Your task to perform on an android device: Open maps Image 0: 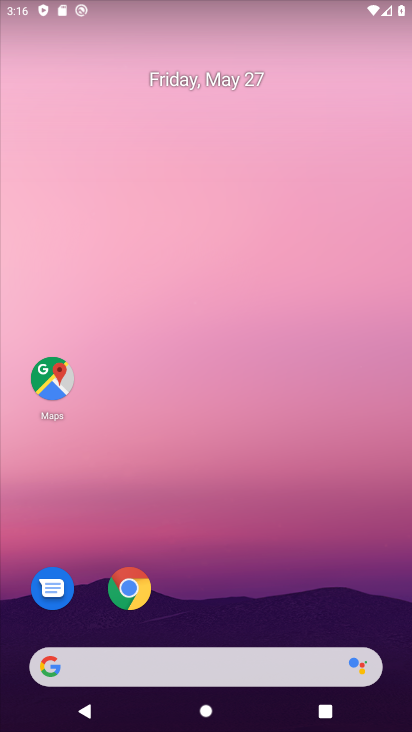
Step 0: drag from (214, 624) to (179, 68)
Your task to perform on an android device: Open maps Image 1: 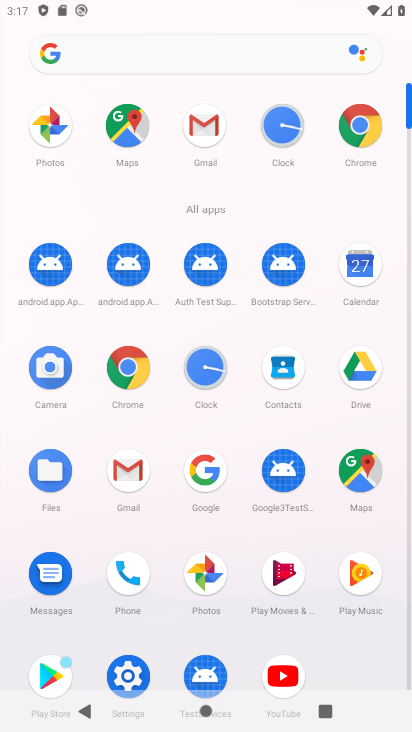
Step 1: click (391, 471)
Your task to perform on an android device: Open maps Image 2: 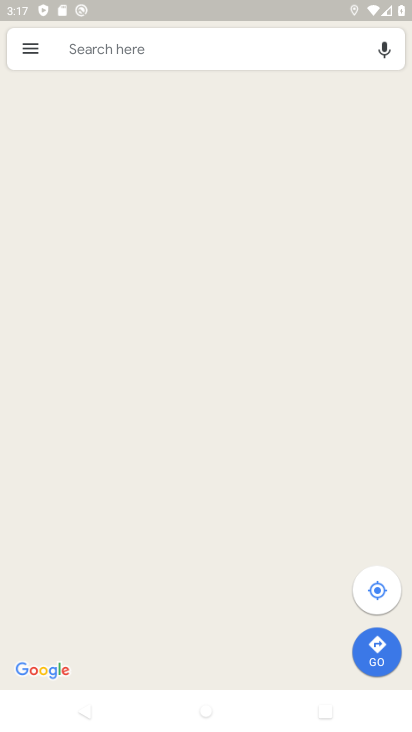
Step 2: task complete